Your task to perform on an android device: change the clock display to digital Image 0: 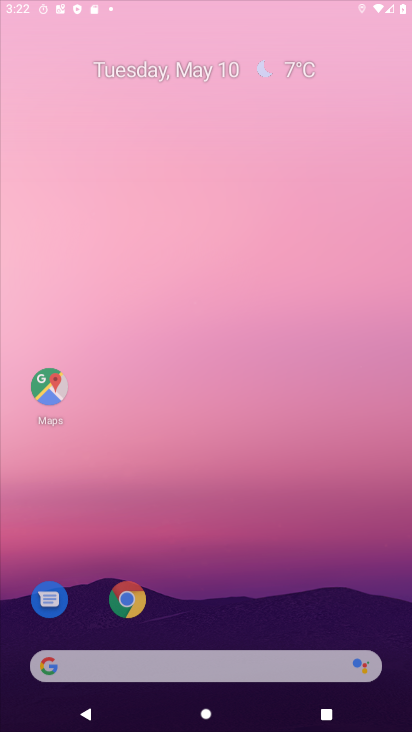
Step 0: click (394, 302)
Your task to perform on an android device: change the clock display to digital Image 1: 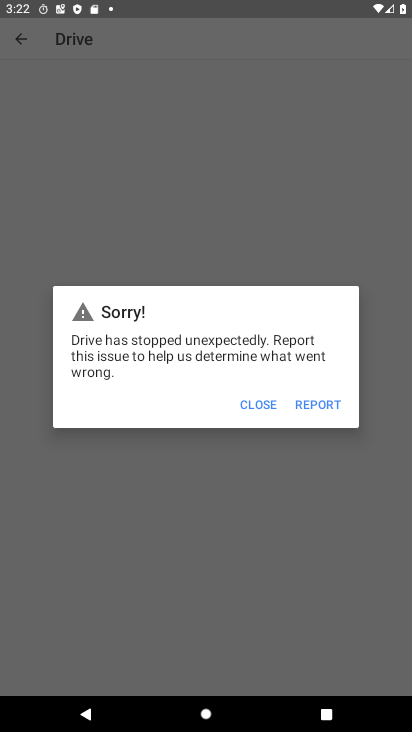
Step 1: press home button
Your task to perform on an android device: change the clock display to digital Image 2: 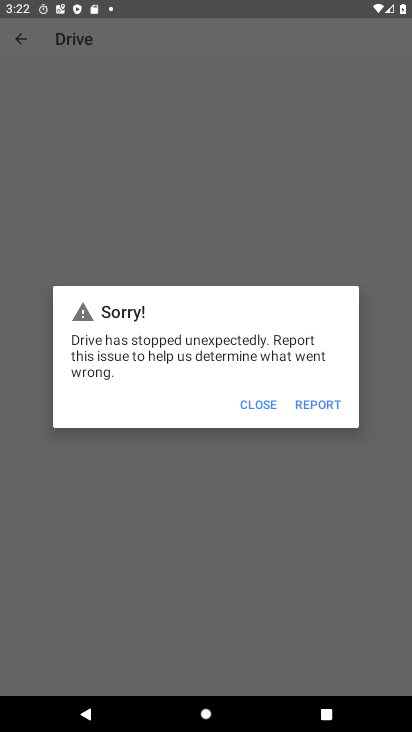
Step 2: drag from (394, 302) to (408, 443)
Your task to perform on an android device: change the clock display to digital Image 3: 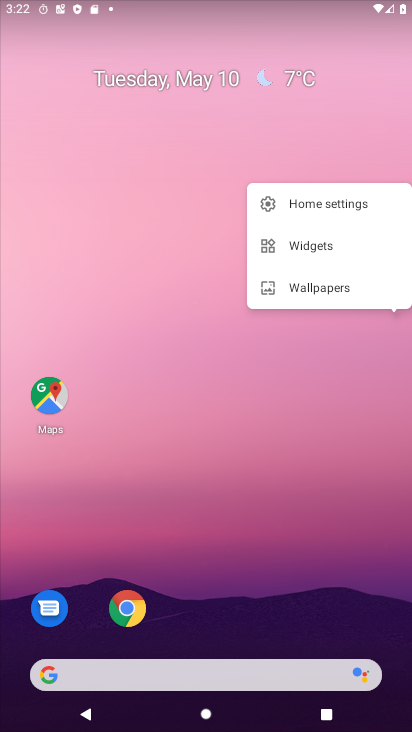
Step 3: drag from (232, 507) to (233, 51)
Your task to perform on an android device: change the clock display to digital Image 4: 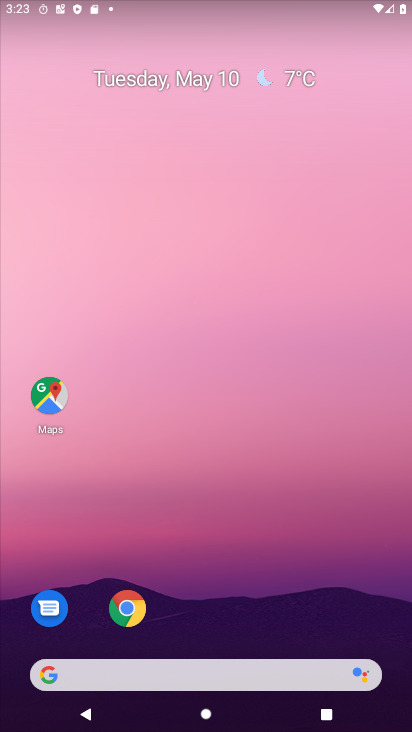
Step 4: drag from (271, 589) to (322, 33)
Your task to perform on an android device: change the clock display to digital Image 5: 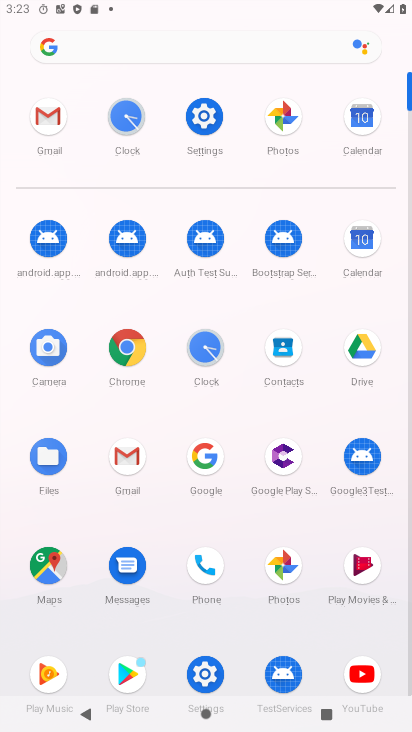
Step 5: click (123, 119)
Your task to perform on an android device: change the clock display to digital Image 6: 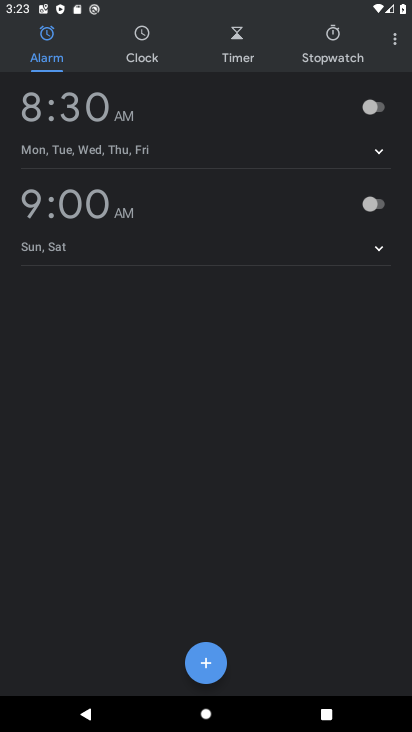
Step 6: click (399, 42)
Your task to perform on an android device: change the clock display to digital Image 7: 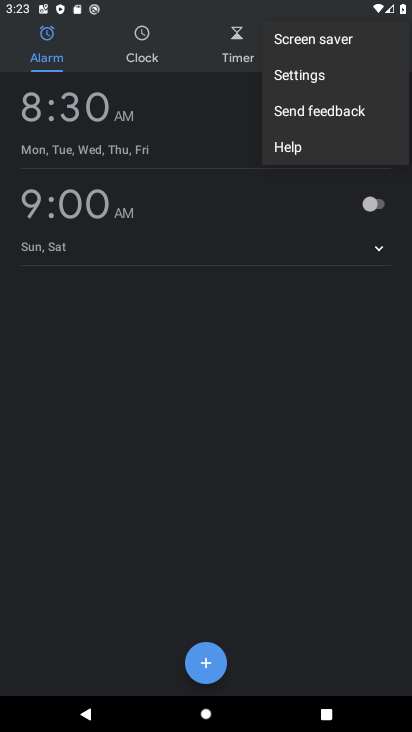
Step 7: click (317, 82)
Your task to perform on an android device: change the clock display to digital Image 8: 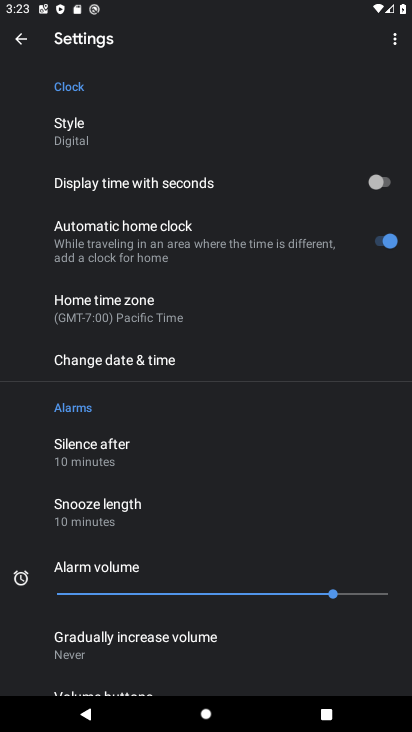
Step 8: task complete